Your task to perform on an android device: turn smart compose on in the gmail app Image 0: 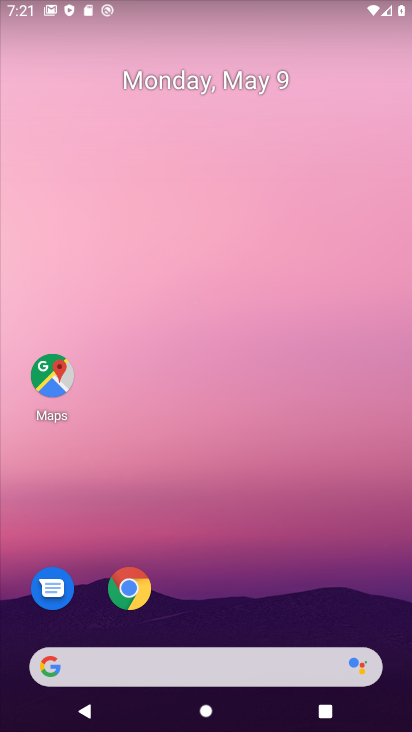
Step 0: drag from (172, 656) to (254, 173)
Your task to perform on an android device: turn smart compose on in the gmail app Image 1: 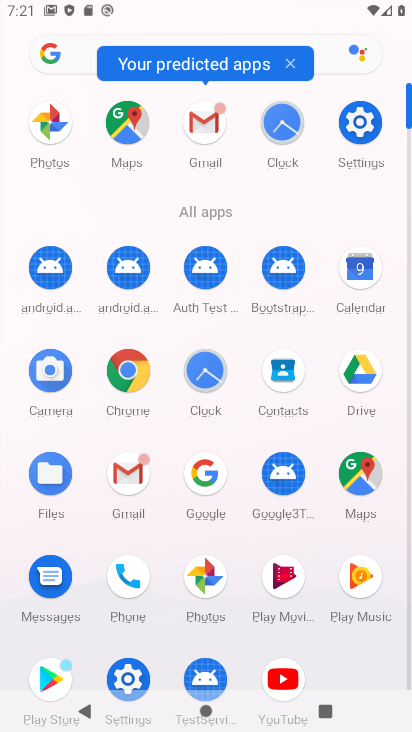
Step 1: click (213, 124)
Your task to perform on an android device: turn smart compose on in the gmail app Image 2: 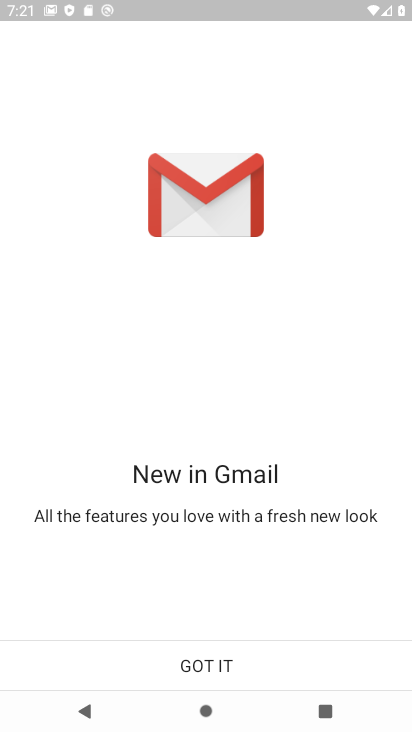
Step 2: click (219, 662)
Your task to perform on an android device: turn smart compose on in the gmail app Image 3: 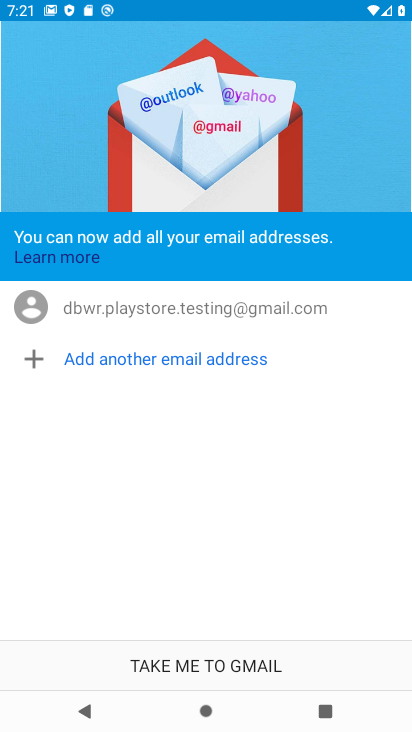
Step 3: click (240, 677)
Your task to perform on an android device: turn smart compose on in the gmail app Image 4: 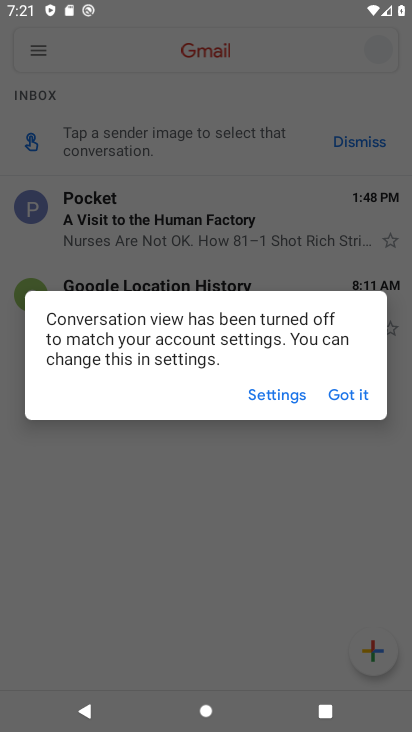
Step 4: click (340, 397)
Your task to perform on an android device: turn smart compose on in the gmail app Image 5: 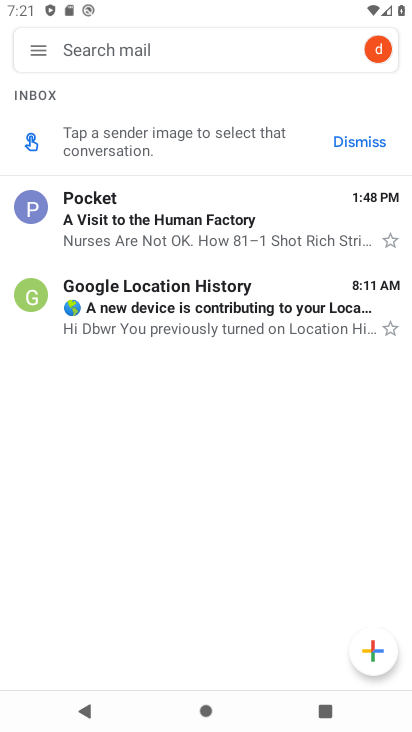
Step 5: click (43, 55)
Your task to perform on an android device: turn smart compose on in the gmail app Image 6: 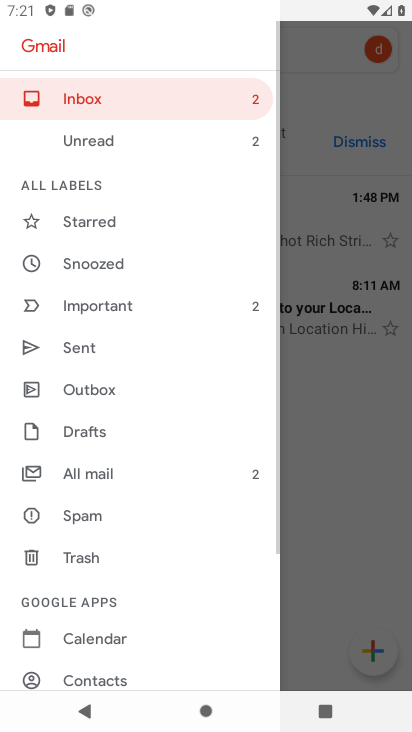
Step 6: drag from (144, 601) to (209, 178)
Your task to perform on an android device: turn smart compose on in the gmail app Image 7: 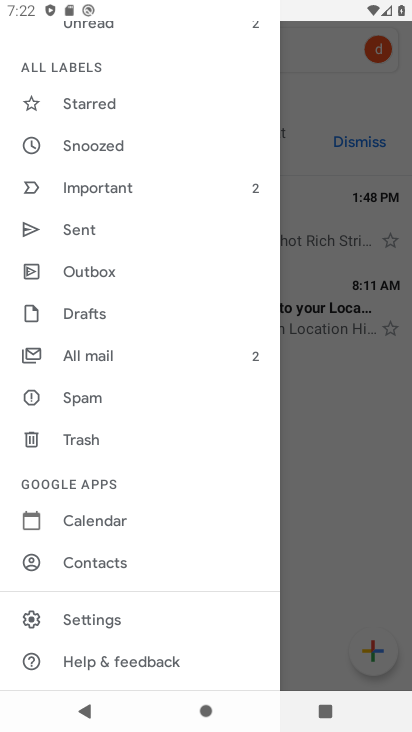
Step 7: click (80, 620)
Your task to perform on an android device: turn smart compose on in the gmail app Image 8: 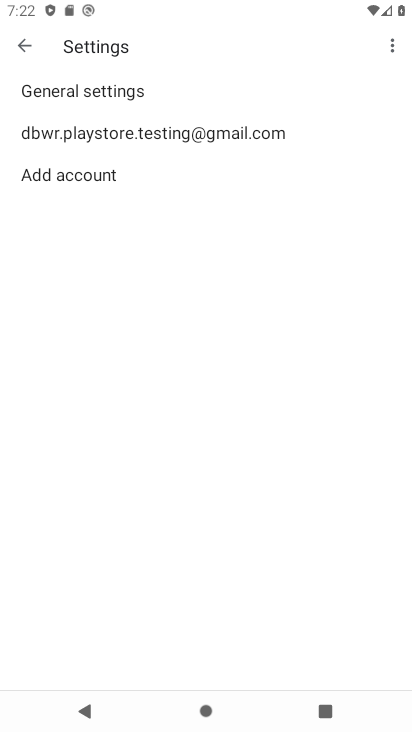
Step 8: click (173, 125)
Your task to perform on an android device: turn smart compose on in the gmail app Image 9: 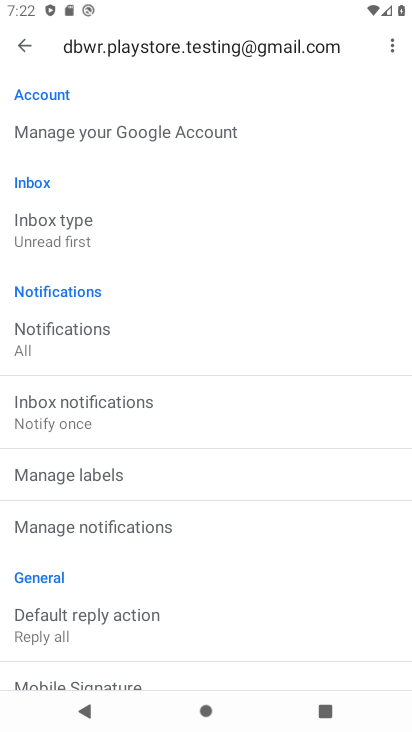
Step 9: task complete